Your task to perform on an android device: Is it going to rain this weekend? Image 0: 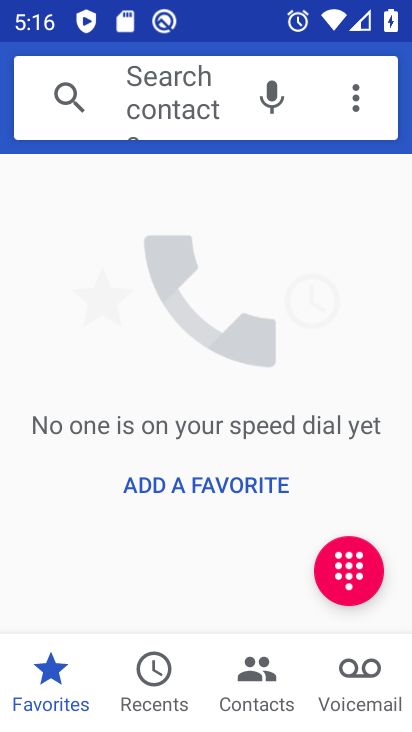
Step 0: press home button
Your task to perform on an android device: Is it going to rain this weekend? Image 1: 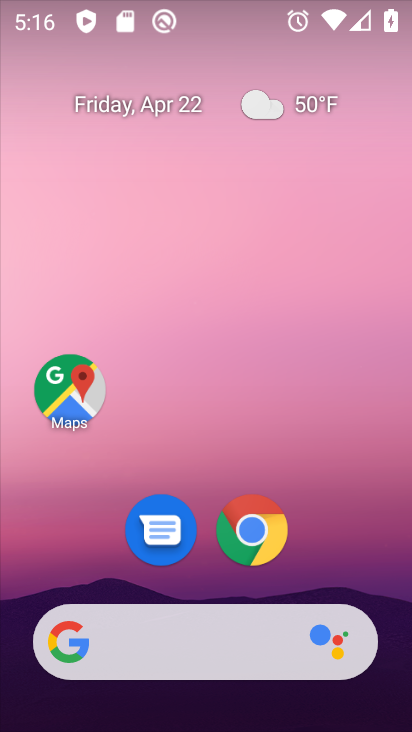
Step 1: drag from (308, 568) to (332, 2)
Your task to perform on an android device: Is it going to rain this weekend? Image 2: 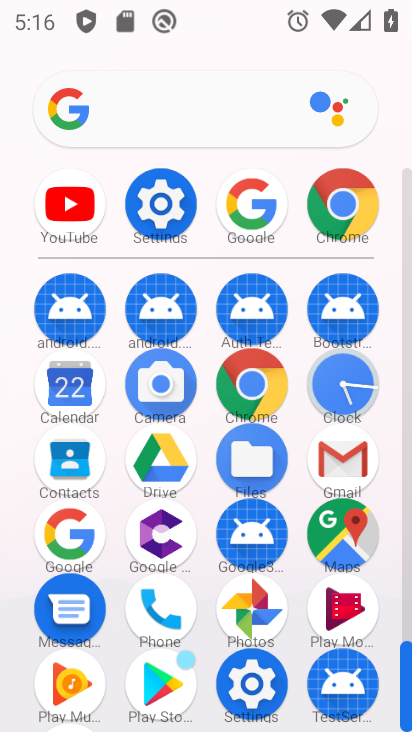
Step 2: click (242, 371)
Your task to perform on an android device: Is it going to rain this weekend? Image 3: 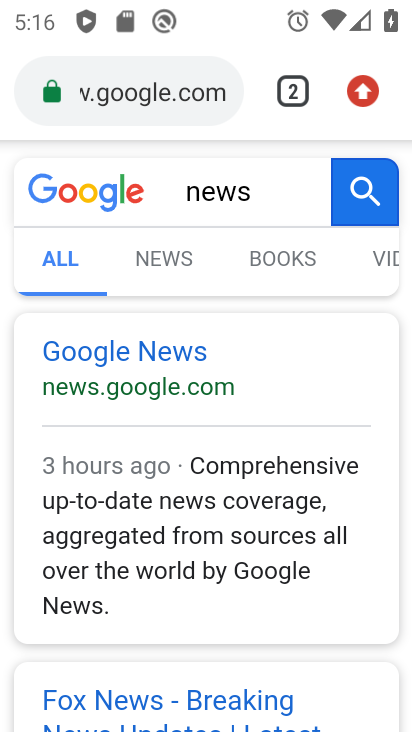
Step 3: drag from (295, 97) to (293, 177)
Your task to perform on an android device: Is it going to rain this weekend? Image 4: 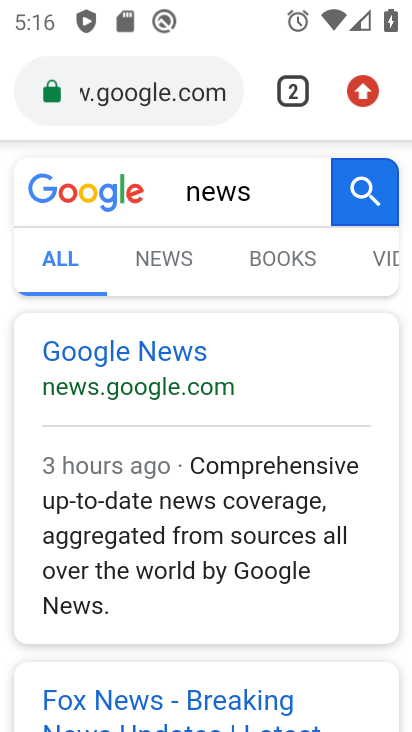
Step 4: click (366, 92)
Your task to perform on an android device: Is it going to rain this weekend? Image 5: 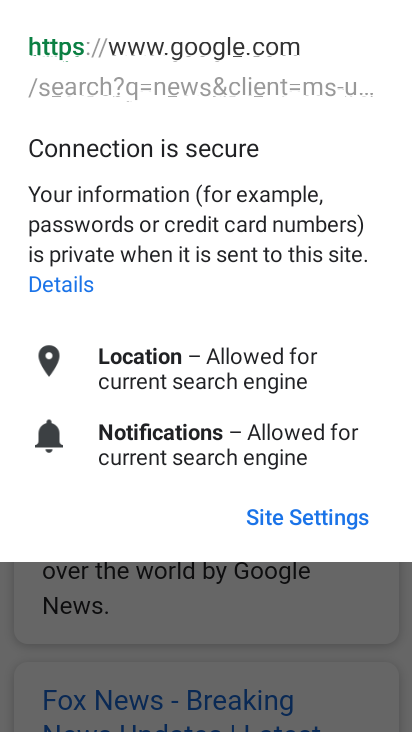
Step 5: click (380, 656)
Your task to perform on an android device: Is it going to rain this weekend? Image 6: 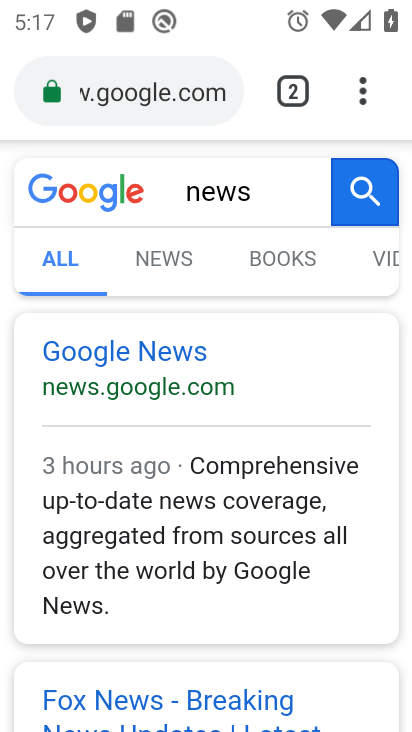
Step 6: click (167, 82)
Your task to perform on an android device: Is it going to rain this weekend? Image 7: 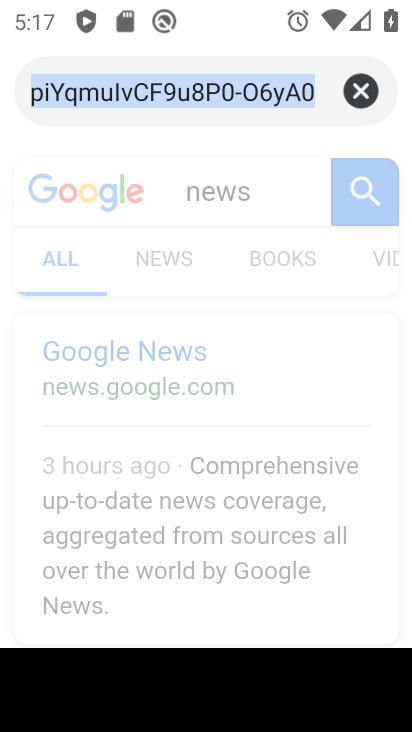
Step 7: click (357, 79)
Your task to perform on an android device: Is it going to rain this weekend? Image 8: 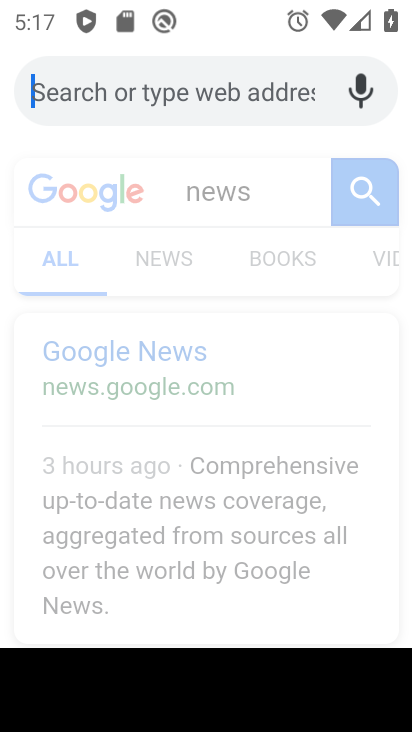
Step 8: type "Is it going to rain this weekend?"
Your task to perform on an android device: Is it going to rain this weekend? Image 9: 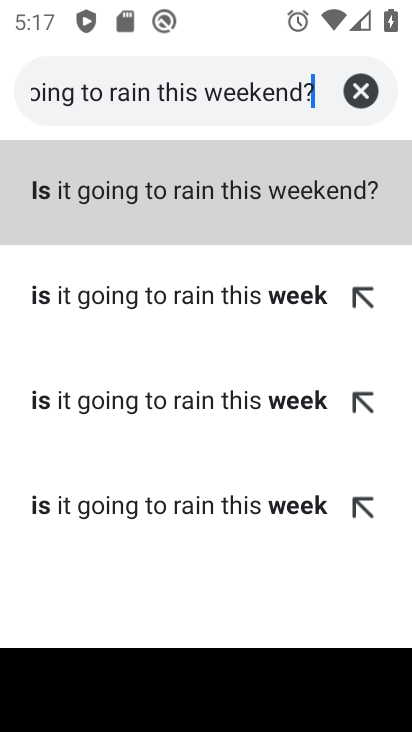
Step 9: click (173, 181)
Your task to perform on an android device: Is it going to rain this weekend? Image 10: 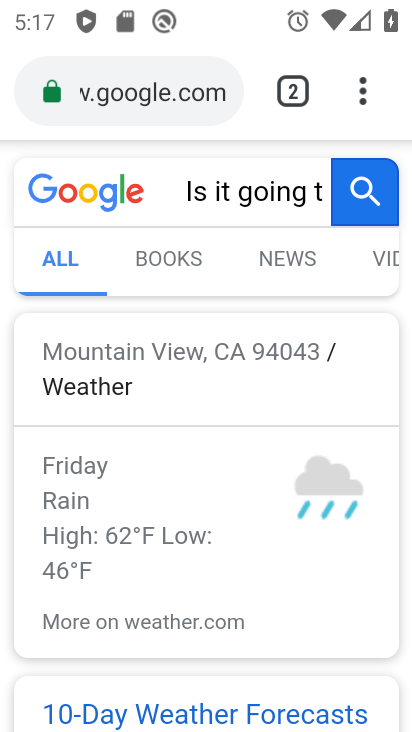
Step 10: task complete